Your task to perform on an android device: toggle javascript in the chrome app Image 0: 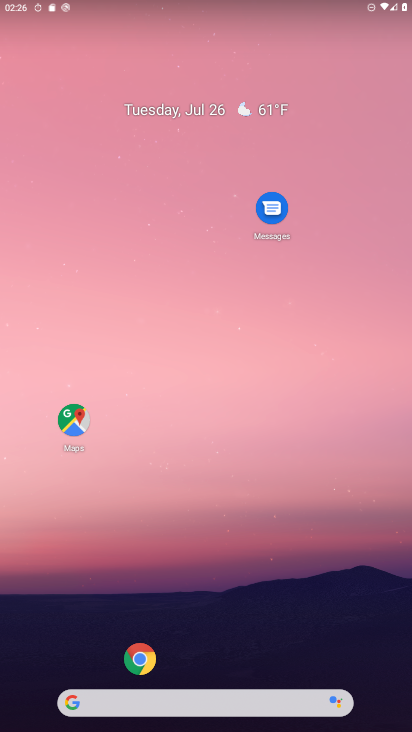
Step 0: click (143, 652)
Your task to perform on an android device: toggle javascript in the chrome app Image 1: 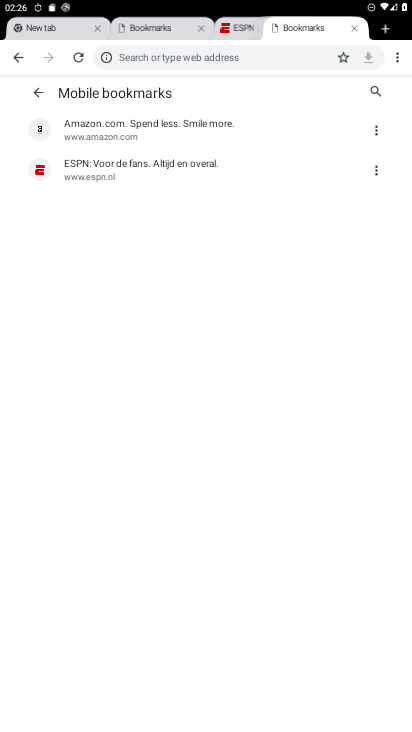
Step 1: click (408, 50)
Your task to perform on an android device: toggle javascript in the chrome app Image 2: 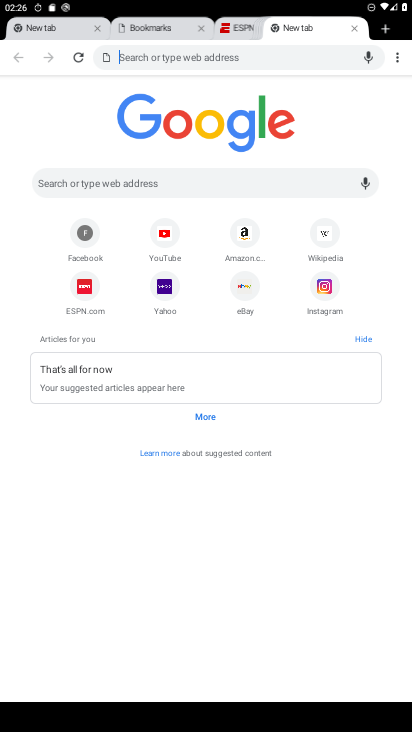
Step 2: click (397, 54)
Your task to perform on an android device: toggle javascript in the chrome app Image 3: 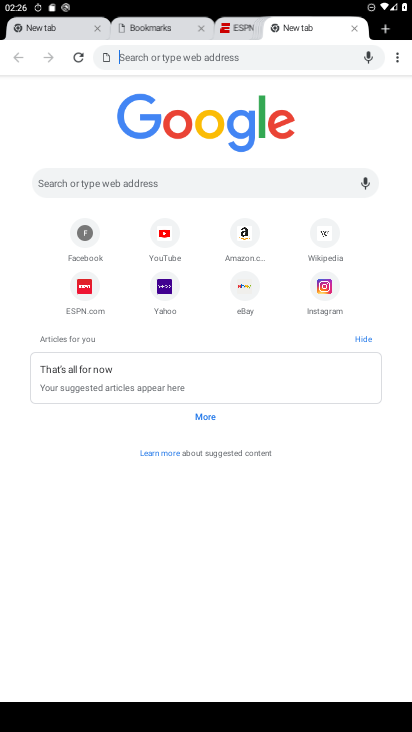
Step 3: click (397, 57)
Your task to perform on an android device: toggle javascript in the chrome app Image 4: 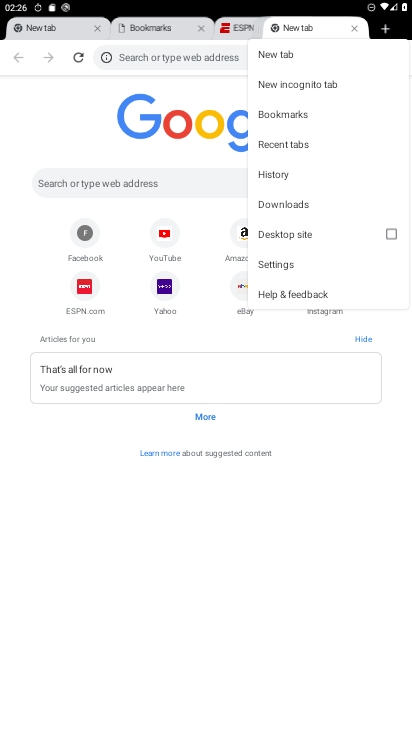
Step 4: click (289, 264)
Your task to perform on an android device: toggle javascript in the chrome app Image 5: 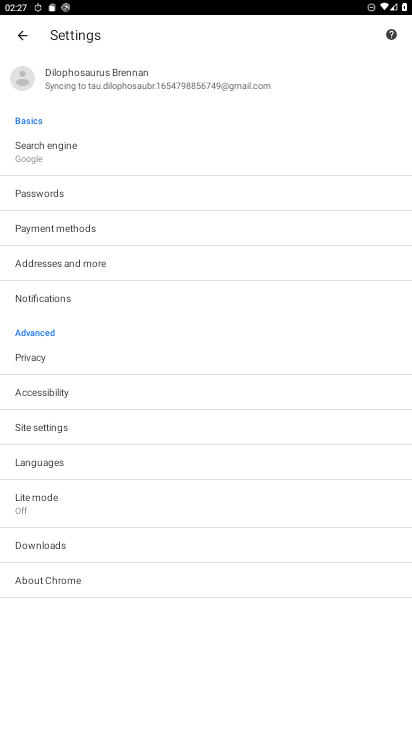
Step 5: click (20, 429)
Your task to perform on an android device: toggle javascript in the chrome app Image 6: 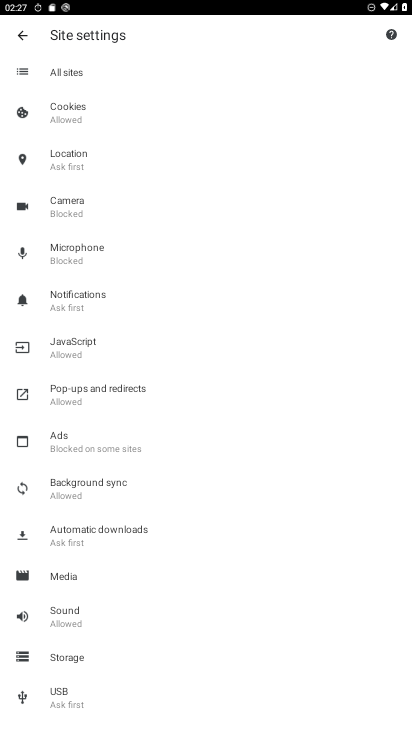
Step 6: click (81, 344)
Your task to perform on an android device: toggle javascript in the chrome app Image 7: 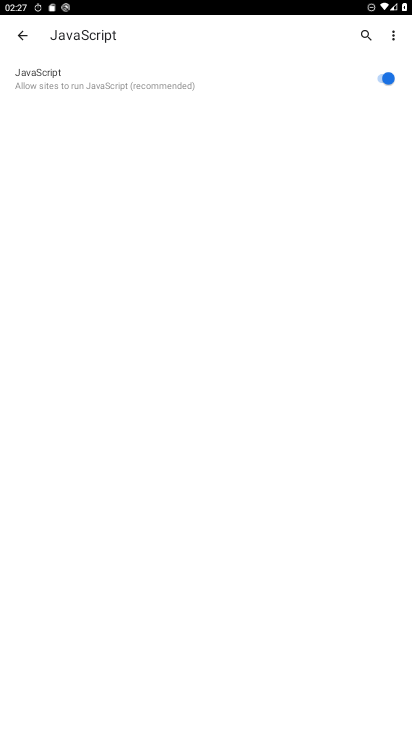
Step 7: task complete